Your task to perform on an android device: Open Android settings Image 0: 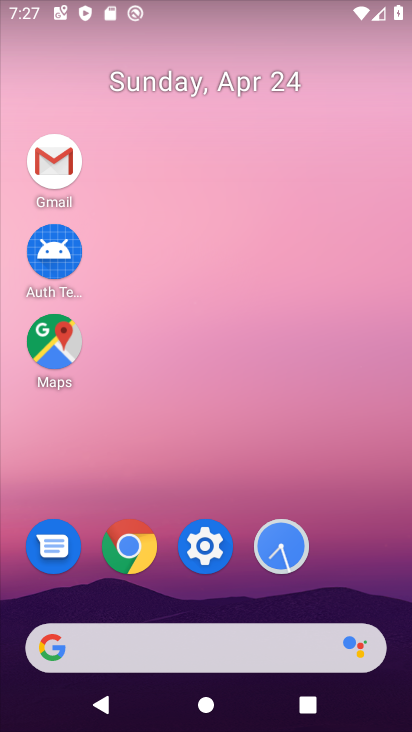
Step 0: click (300, 402)
Your task to perform on an android device: Open Android settings Image 1: 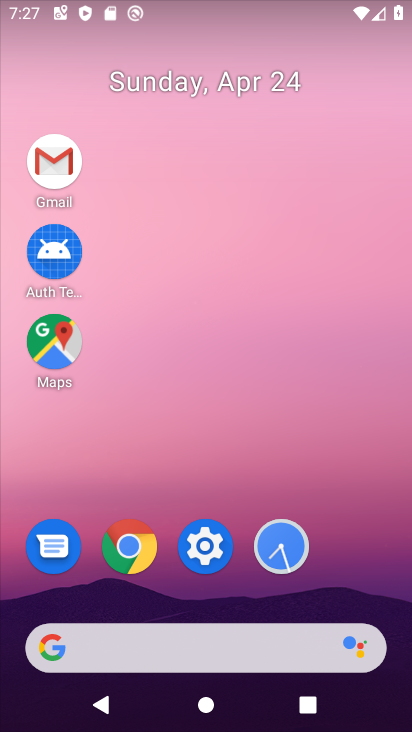
Step 1: click (208, 543)
Your task to perform on an android device: Open Android settings Image 2: 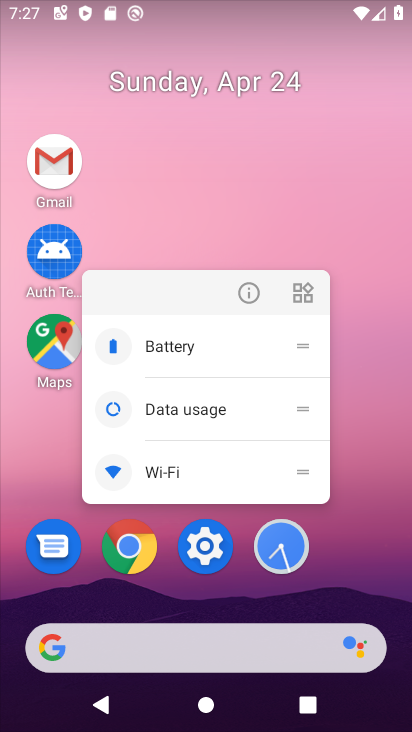
Step 2: click (204, 543)
Your task to perform on an android device: Open Android settings Image 3: 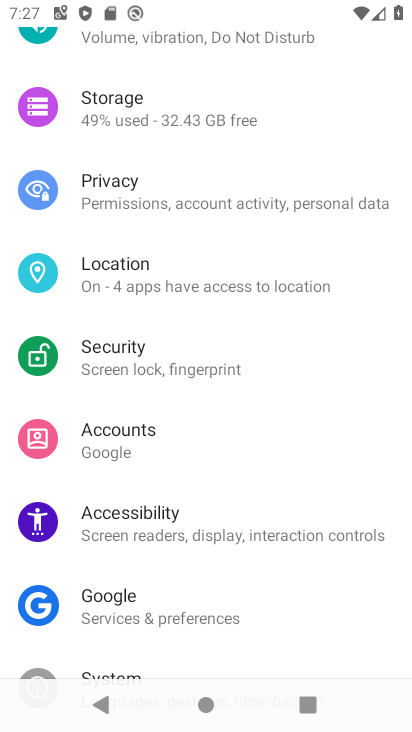
Step 3: task complete